Your task to perform on an android device: Go to Amazon Image 0: 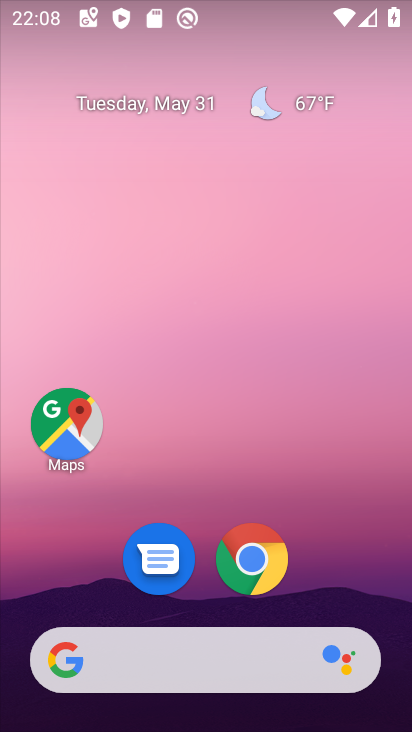
Step 0: click (252, 563)
Your task to perform on an android device: Go to Amazon Image 1: 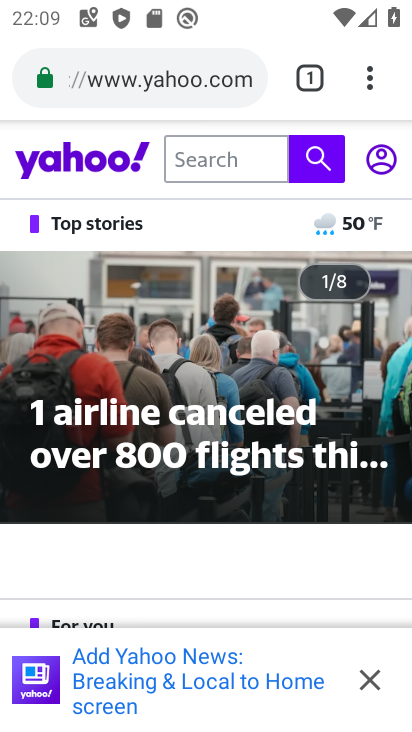
Step 1: press back button
Your task to perform on an android device: Go to Amazon Image 2: 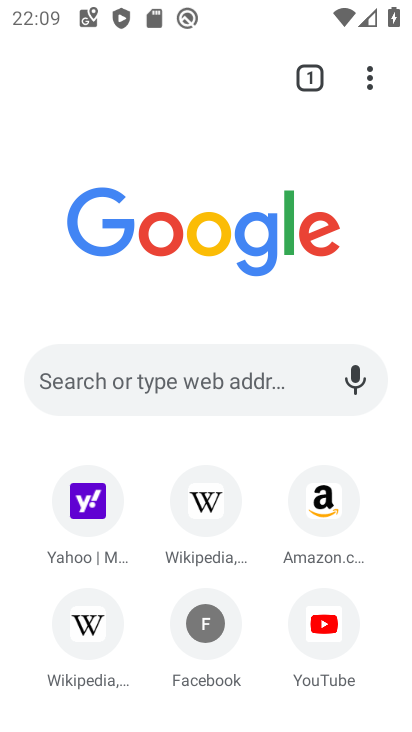
Step 2: click (323, 504)
Your task to perform on an android device: Go to Amazon Image 3: 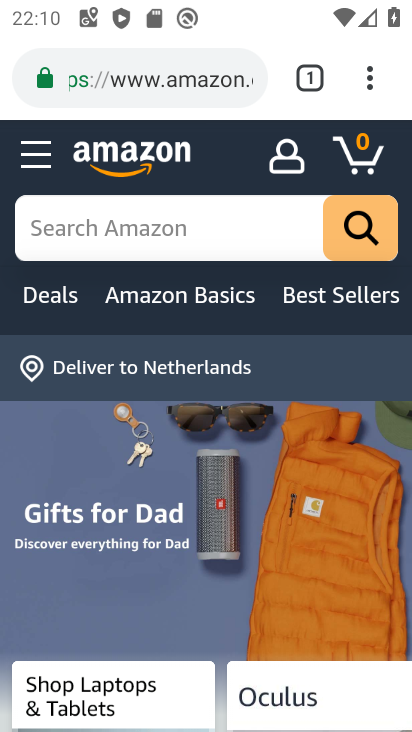
Step 3: task complete